Your task to perform on an android device: toggle translation in the chrome app Image 0: 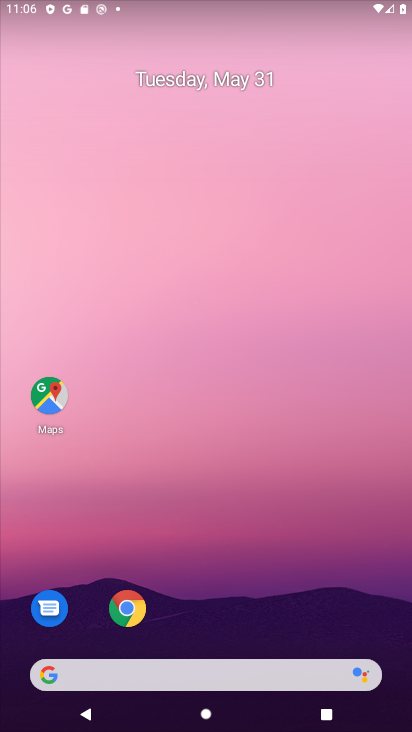
Step 0: click (134, 621)
Your task to perform on an android device: toggle translation in the chrome app Image 1: 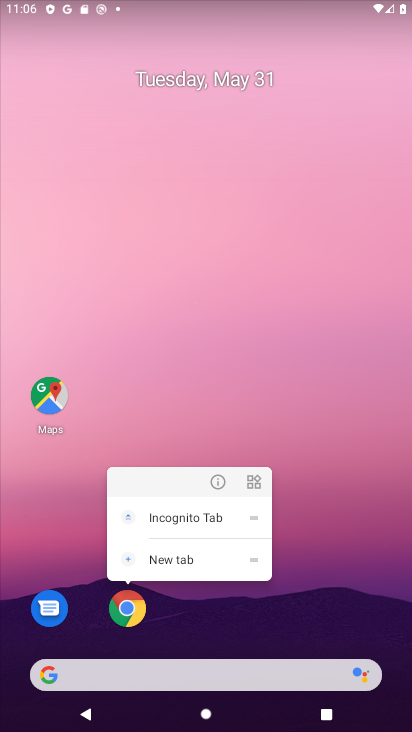
Step 1: click (122, 614)
Your task to perform on an android device: toggle translation in the chrome app Image 2: 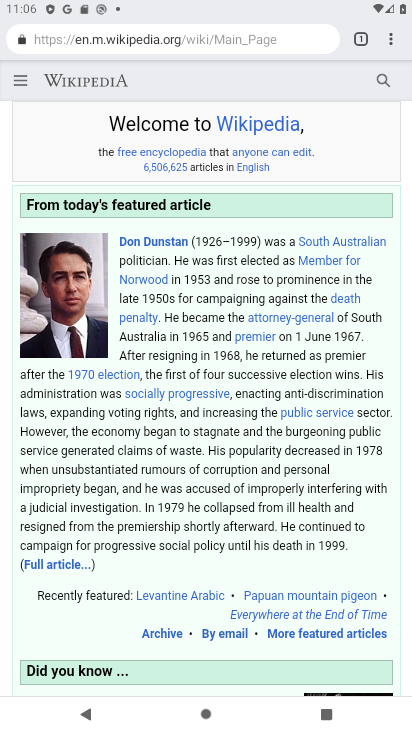
Step 2: drag from (387, 34) to (273, 463)
Your task to perform on an android device: toggle translation in the chrome app Image 3: 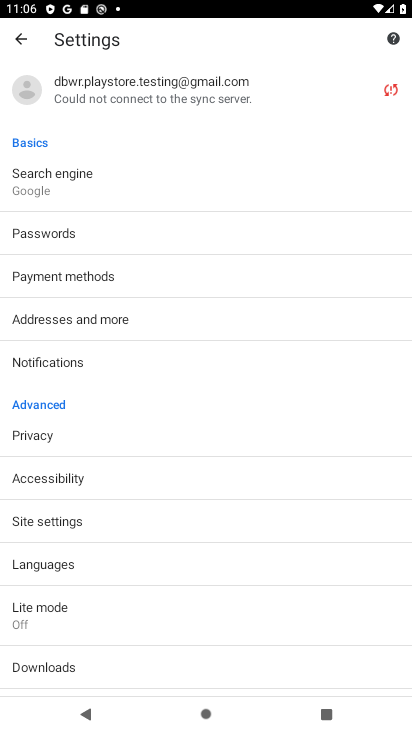
Step 3: click (69, 574)
Your task to perform on an android device: toggle translation in the chrome app Image 4: 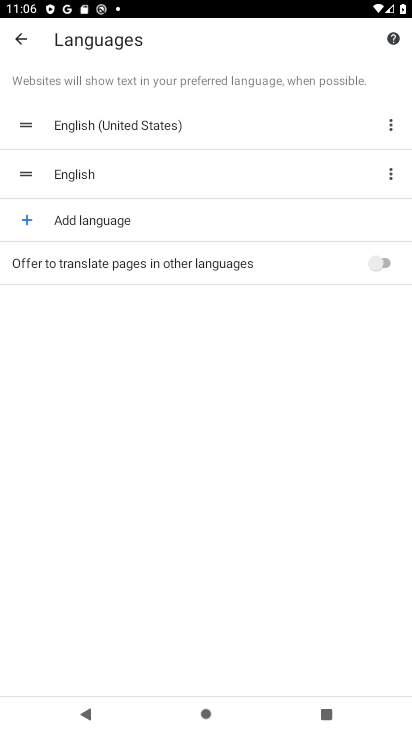
Step 4: click (333, 263)
Your task to perform on an android device: toggle translation in the chrome app Image 5: 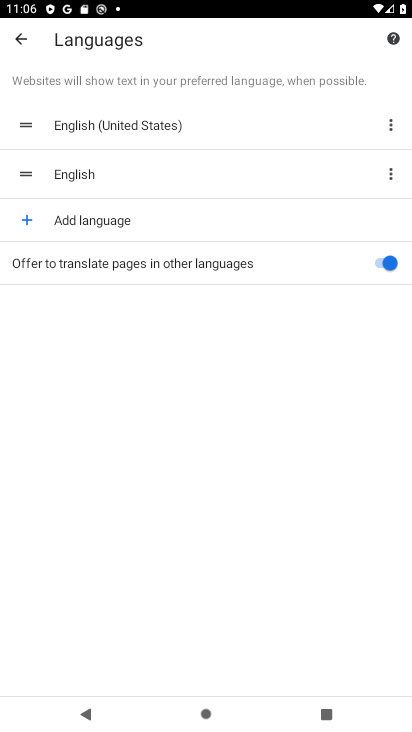
Step 5: task complete